Your task to perform on an android device: check battery use Image 0: 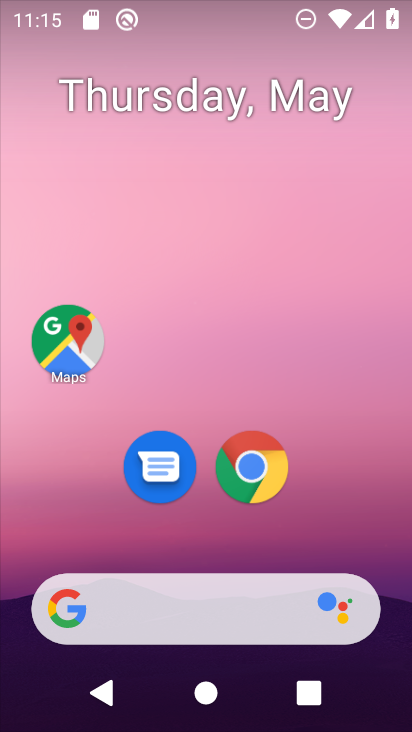
Step 0: drag from (251, 558) to (242, 242)
Your task to perform on an android device: check battery use Image 1: 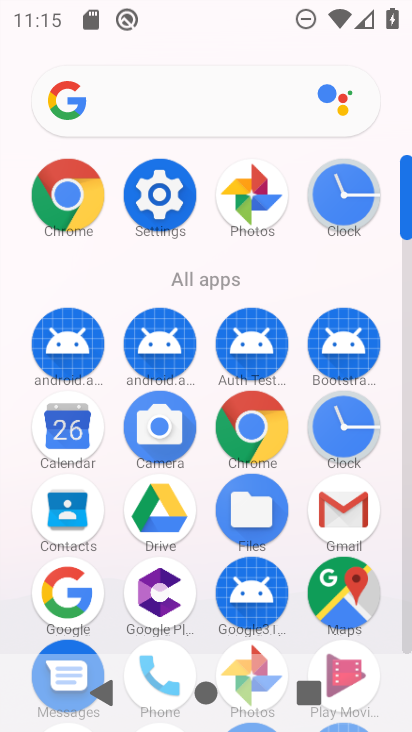
Step 1: drag from (206, 280) to (220, 82)
Your task to perform on an android device: check battery use Image 2: 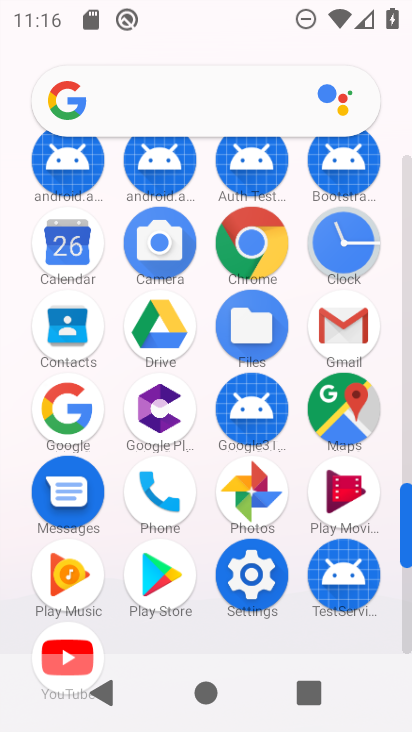
Step 2: click (238, 585)
Your task to perform on an android device: check battery use Image 3: 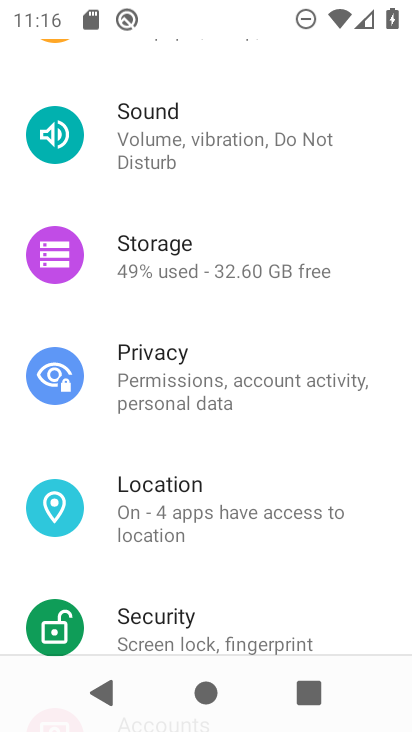
Step 3: drag from (219, 280) to (209, 535)
Your task to perform on an android device: check battery use Image 4: 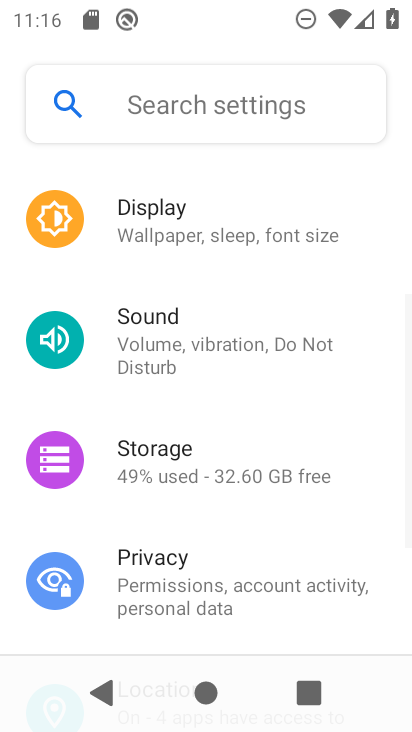
Step 4: drag from (201, 275) to (193, 546)
Your task to perform on an android device: check battery use Image 5: 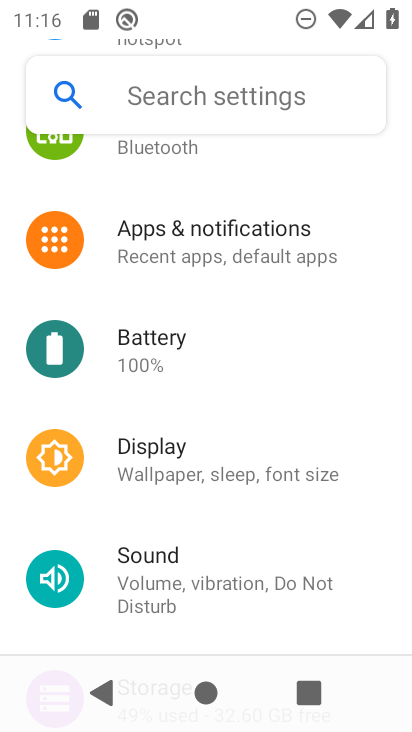
Step 5: click (162, 362)
Your task to perform on an android device: check battery use Image 6: 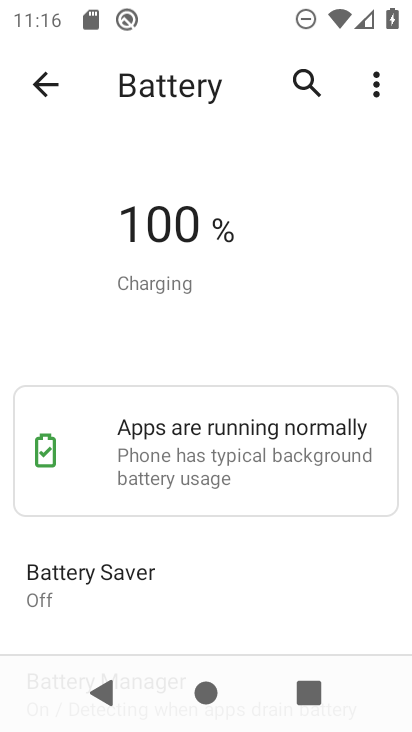
Step 6: click (379, 84)
Your task to perform on an android device: check battery use Image 7: 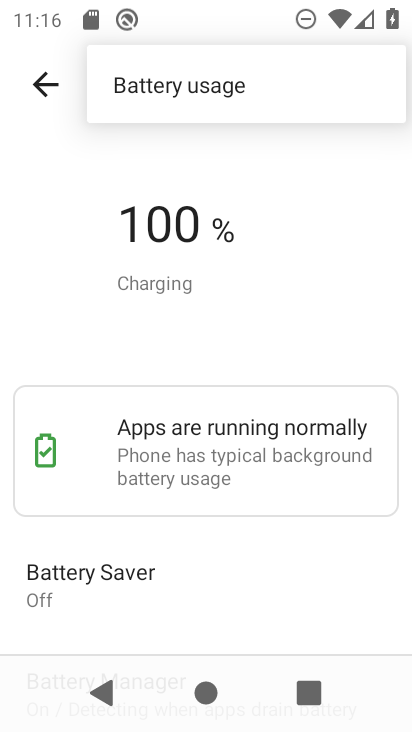
Step 7: click (316, 103)
Your task to perform on an android device: check battery use Image 8: 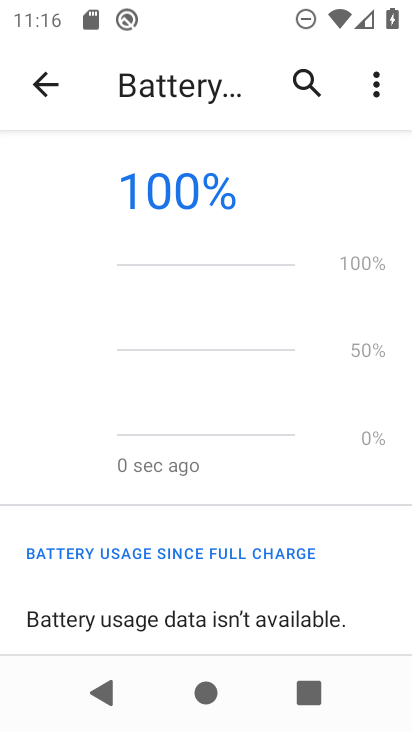
Step 8: task complete